Your task to perform on an android device: turn pop-ups on in chrome Image 0: 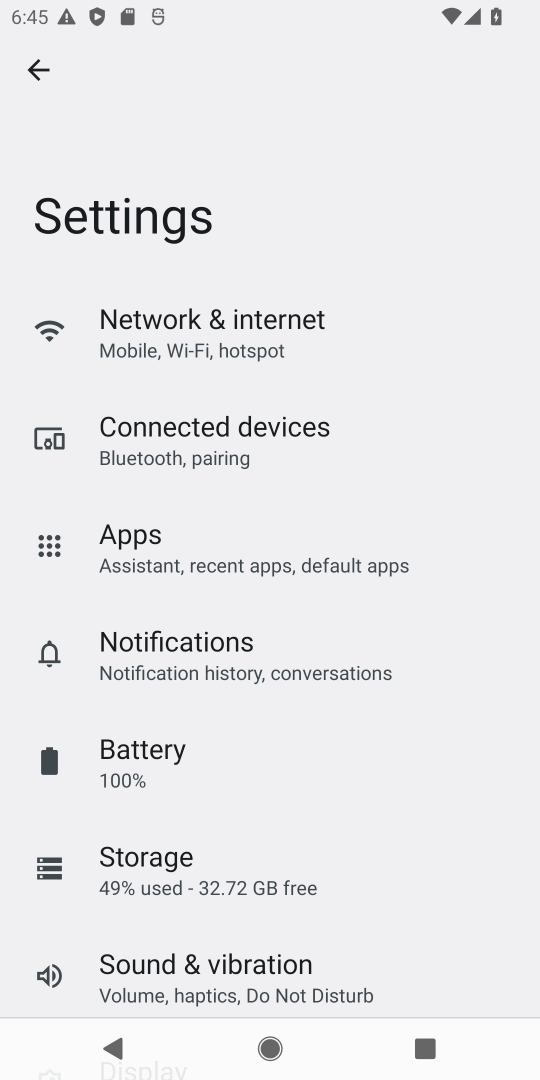
Step 0: press home button
Your task to perform on an android device: turn pop-ups on in chrome Image 1: 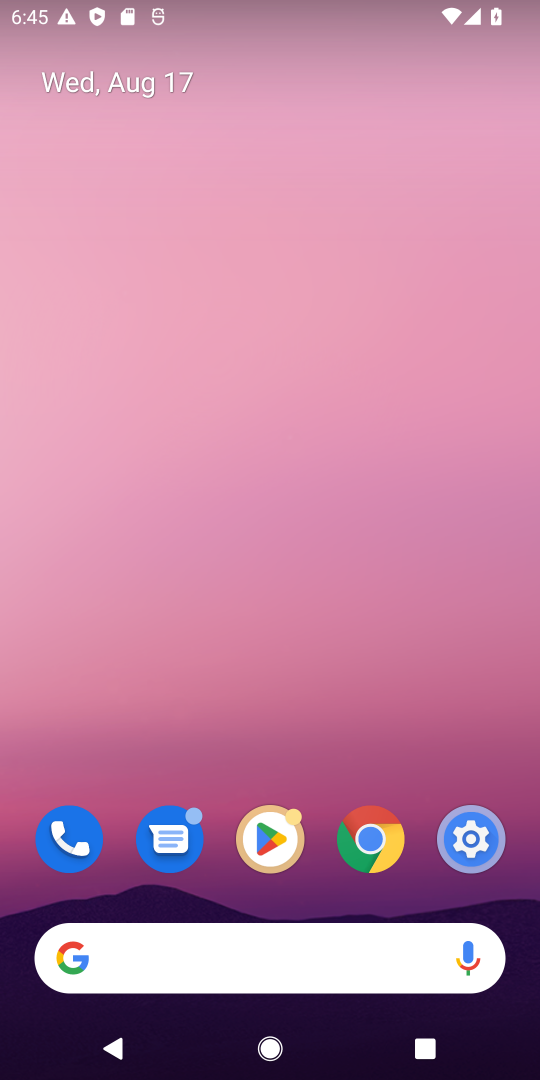
Step 1: click (398, 851)
Your task to perform on an android device: turn pop-ups on in chrome Image 2: 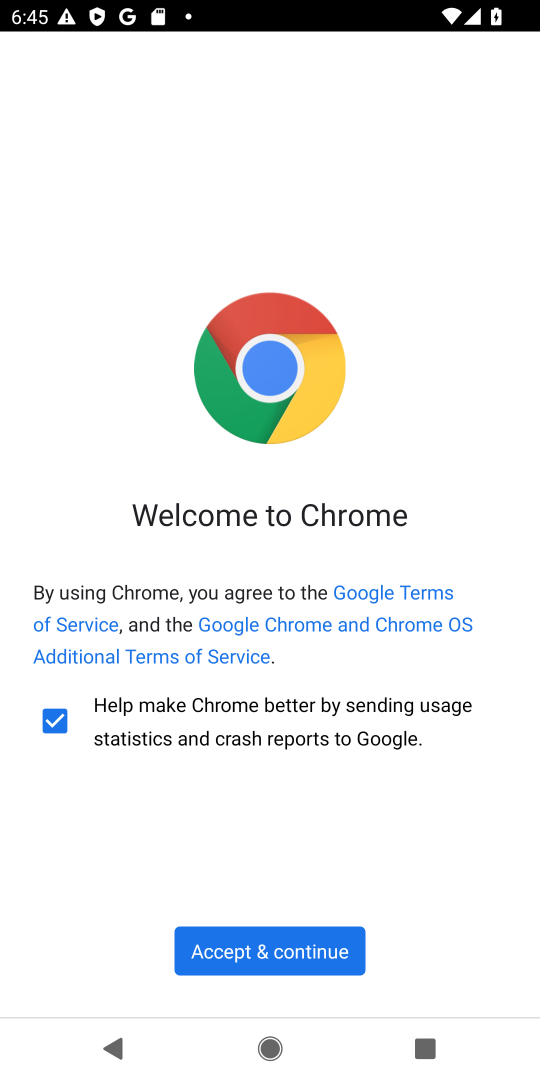
Step 2: click (204, 936)
Your task to perform on an android device: turn pop-ups on in chrome Image 3: 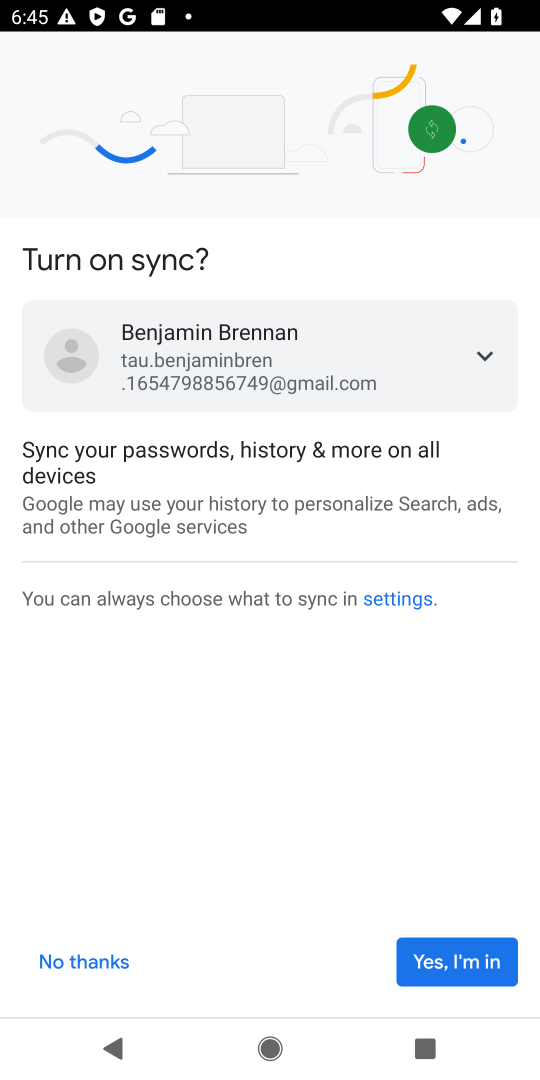
Step 3: click (415, 946)
Your task to perform on an android device: turn pop-ups on in chrome Image 4: 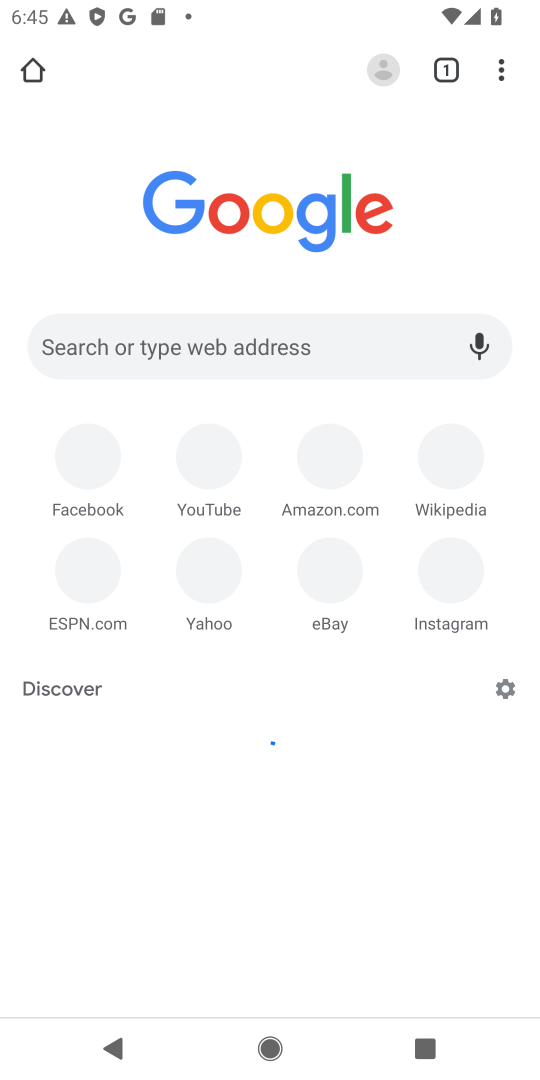
Step 4: click (502, 85)
Your task to perform on an android device: turn pop-ups on in chrome Image 5: 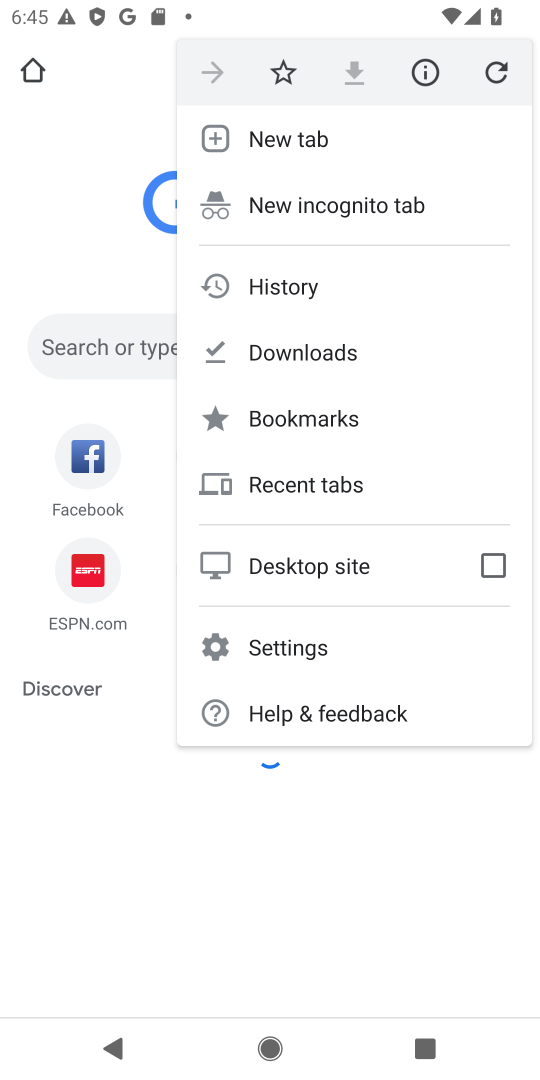
Step 5: click (286, 632)
Your task to perform on an android device: turn pop-ups on in chrome Image 6: 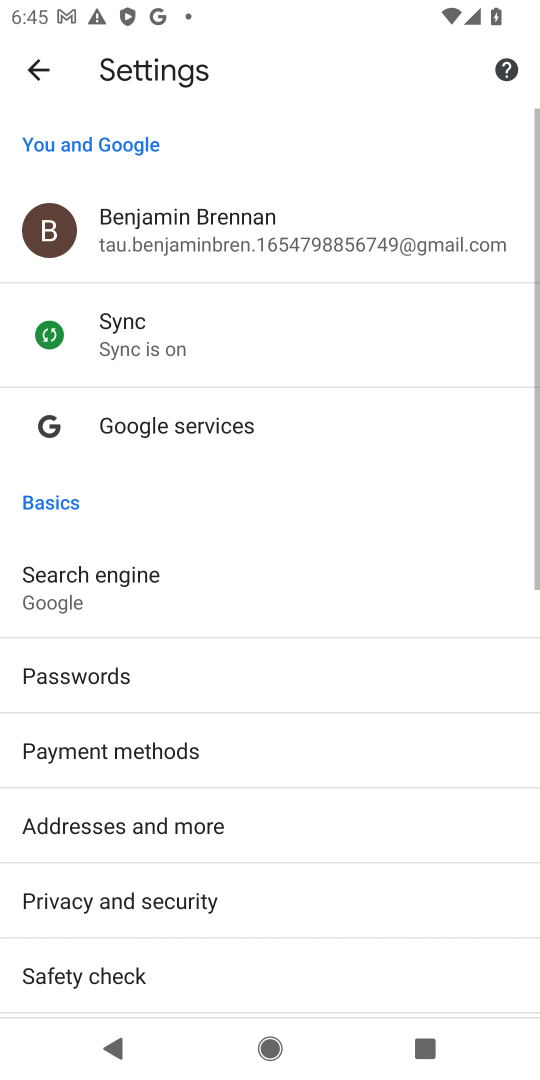
Step 6: drag from (365, 815) to (341, 269)
Your task to perform on an android device: turn pop-ups on in chrome Image 7: 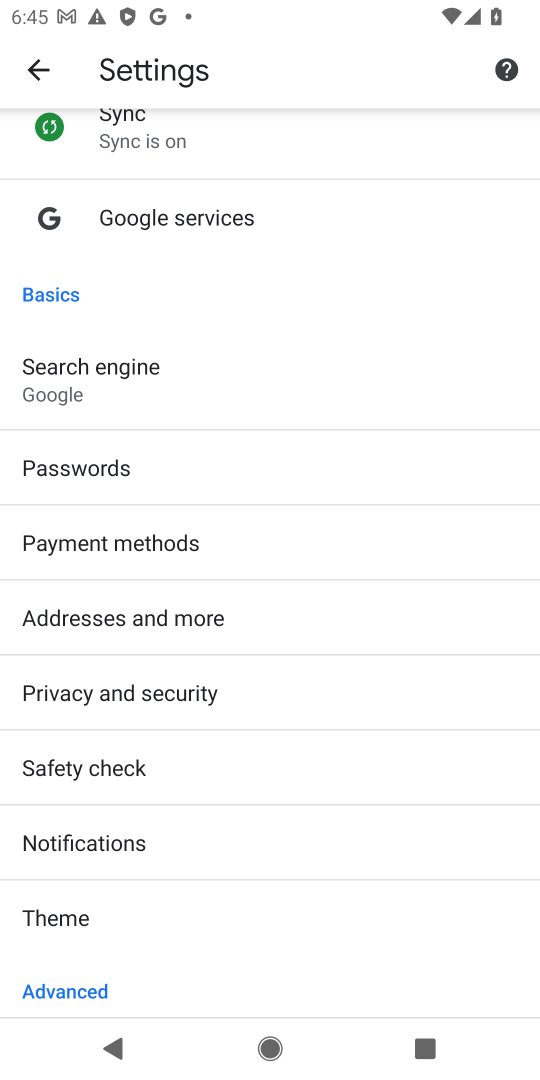
Step 7: drag from (273, 753) to (226, 198)
Your task to perform on an android device: turn pop-ups on in chrome Image 8: 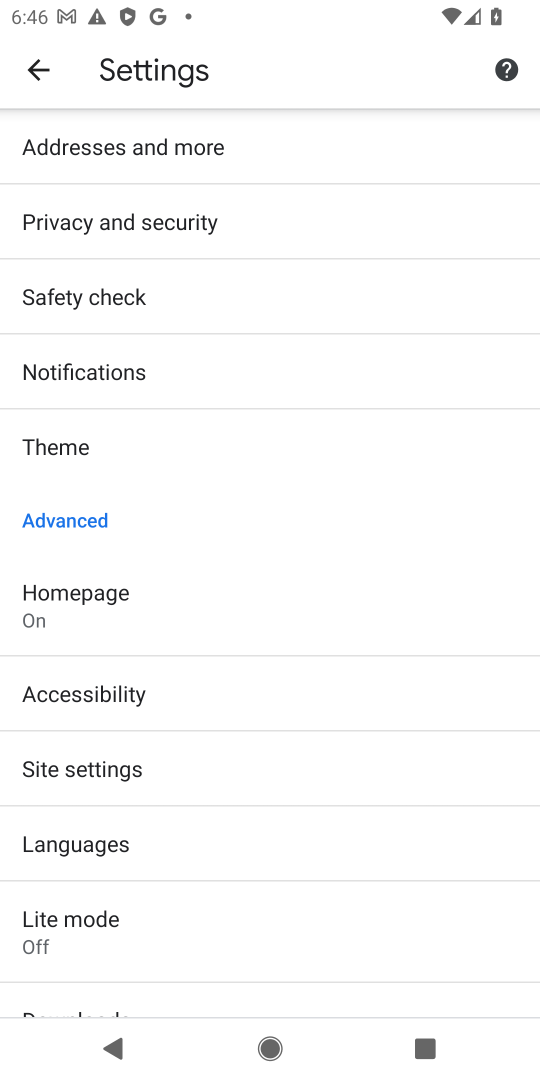
Step 8: click (52, 778)
Your task to perform on an android device: turn pop-ups on in chrome Image 9: 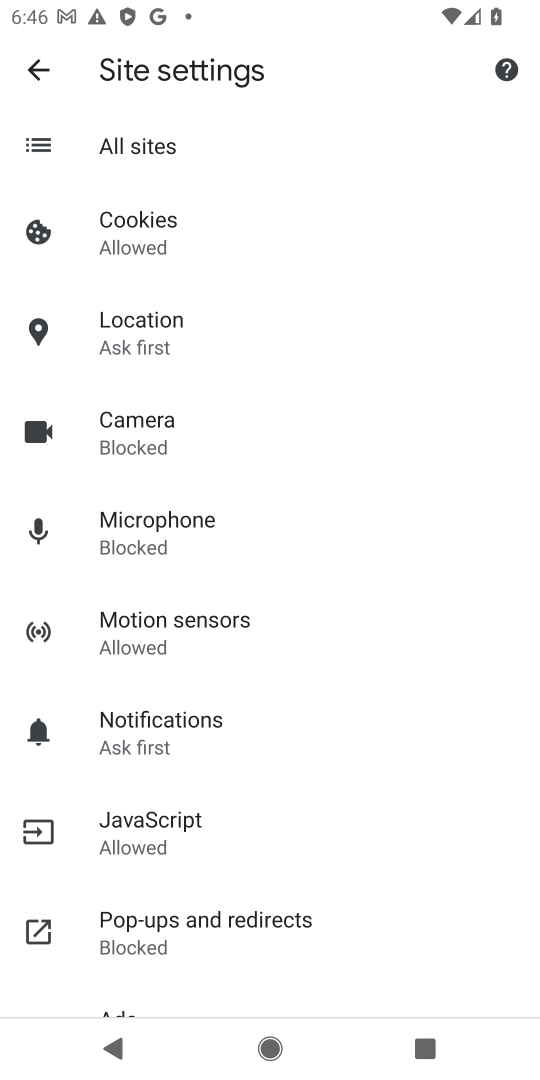
Step 9: click (158, 934)
Your task to perform on an android device: turn pop-ups on in chrome Image 10: 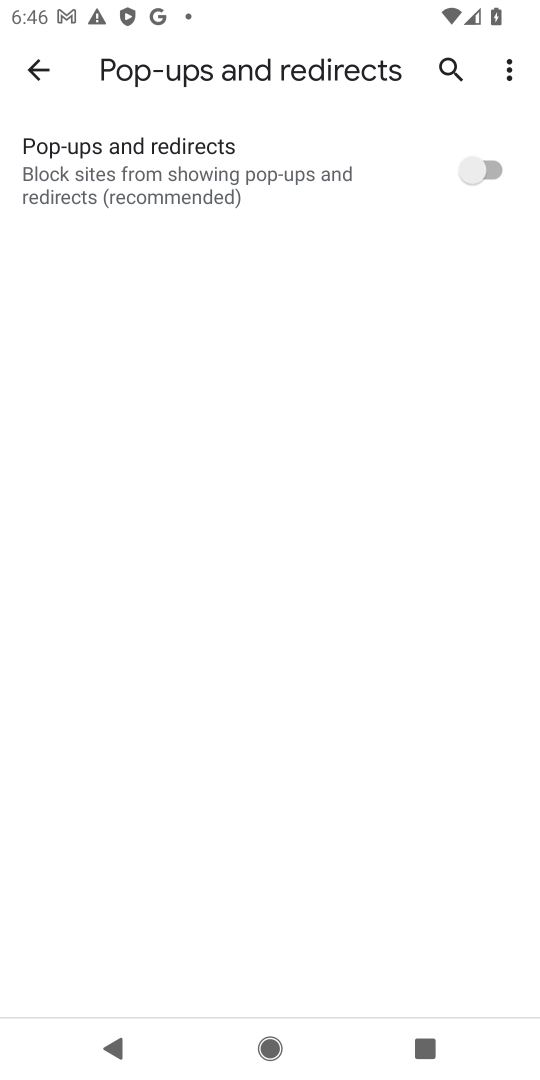
Step 10: click (476, 160)
Your task to perform on an android device: turn pop-ups on in chrome Image 11: 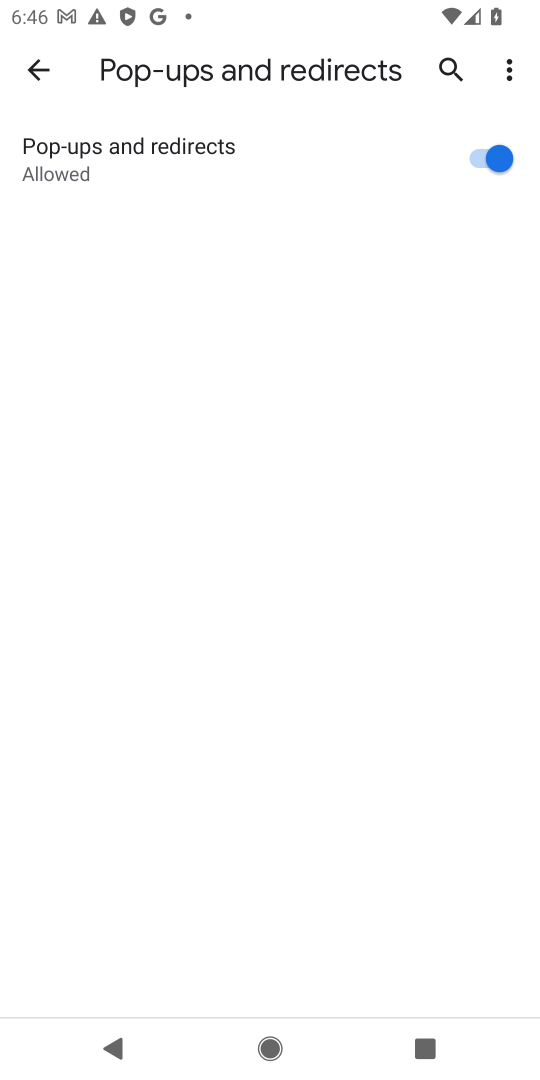
Step 11: task complete